Your task to perform on an android device: turn smart compose on in the gmail app Image 0: 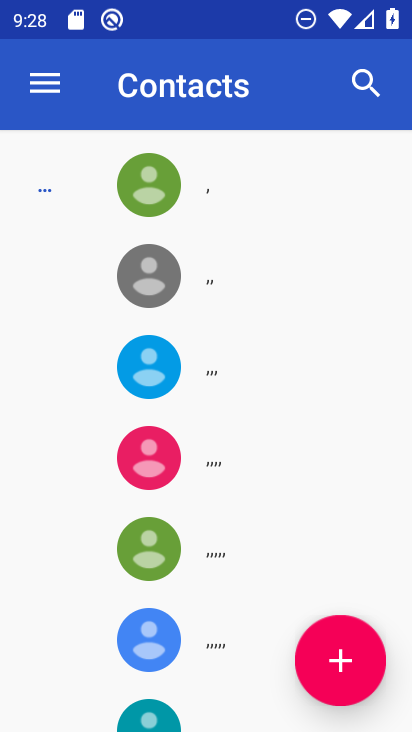
Step 0: press home button
Your task to perform on an android device: turn smart compose on in the gmail app Image 1: 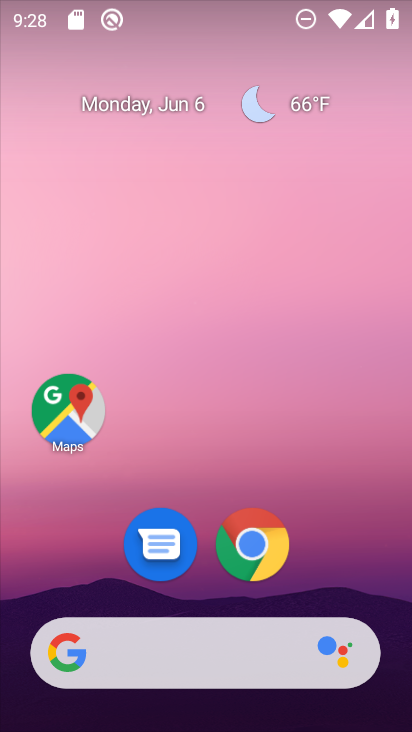
Step 1: drag from (191, 601) to (222, 201)
Your task to perform on an android device: turn smart compose on in the gmail app Image 2: 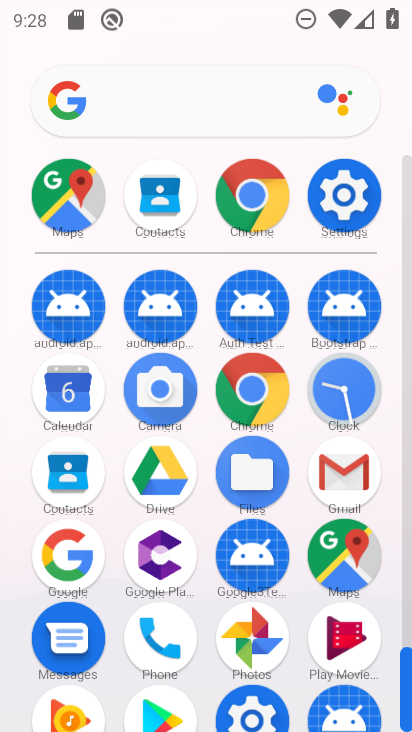
Step 2: click (353, 475)
Your task to perform on an android device: turn smart compose on in the gmail app Image 3: 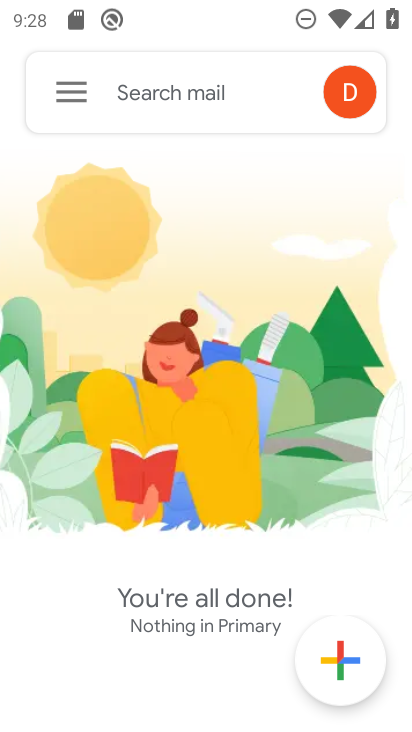
Step 3: click (76, 101)
Your task to perform on an android device: turn smart compose on in the gmail app Image 4: 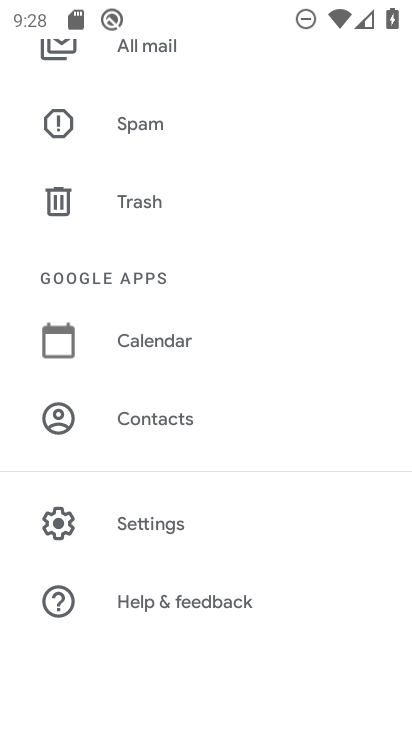
Step 4: click (182, 540)
Your task to perform on an android device: turn smart compose on in the gmail app Image 5: 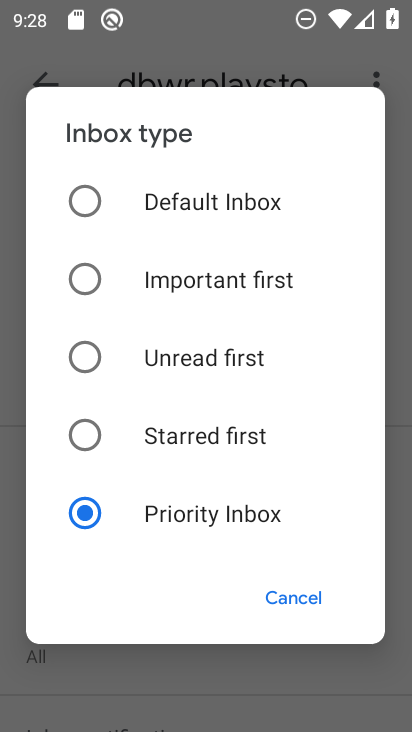
Step 5: click (290, 585)
Your task to perform on an android device: turn smart compose on in the gmail app Image 6: 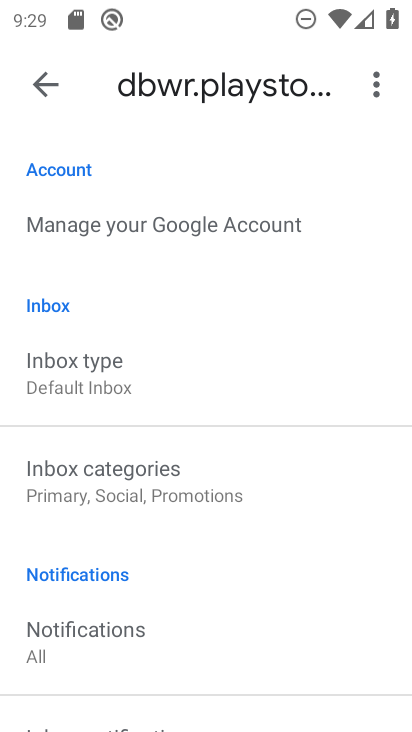
Step 6: task complete